Your task to perform on an android device: refresh tabs in the chrome app Image 0: 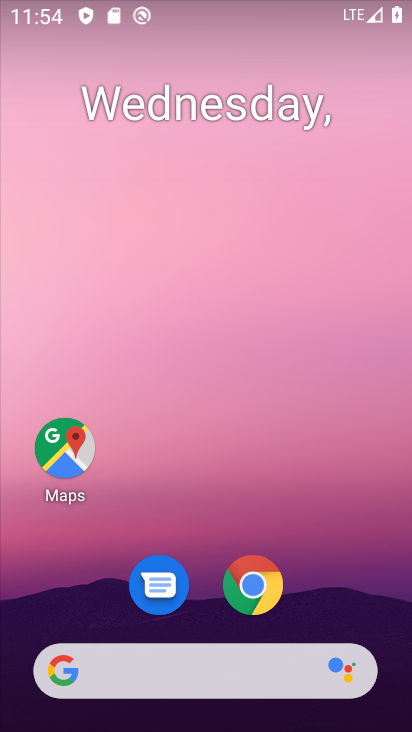
Step 0: click (259, 589)
Your task to perform on an android device: refresh tabs in the chrome app Image 1: 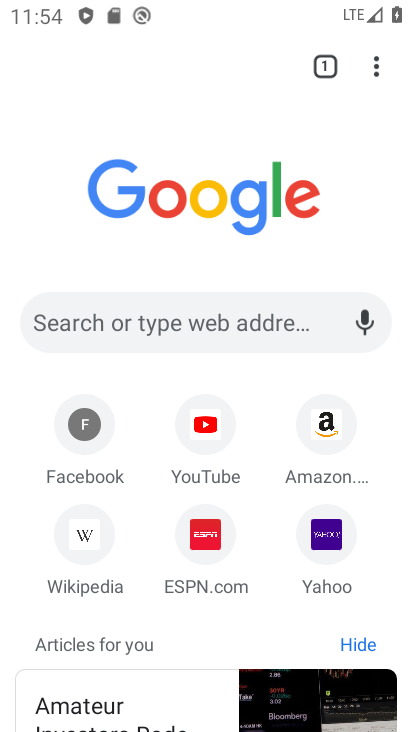
Step 1: click (377, 64)
Your task to perform on an android device: refresh tabs in the chrome app Image 2: 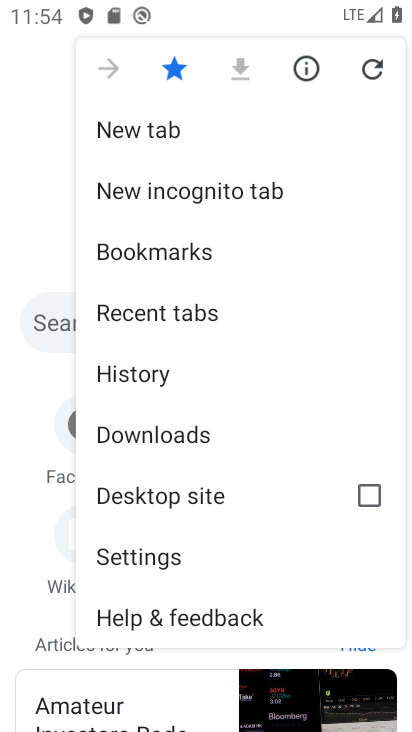
Step 2: click (371, 64)
Your task to perform on an android device: refresh tabs in the chrome app Image 3: 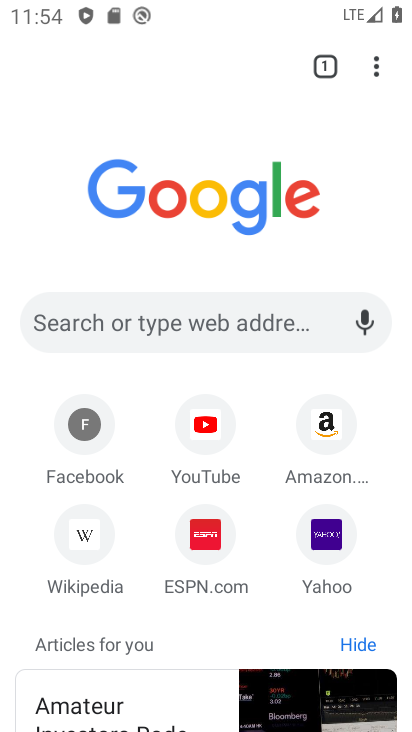
Step 3: task complete